Your task to perform on an android device: Do I have any events this weekend? Image 0: 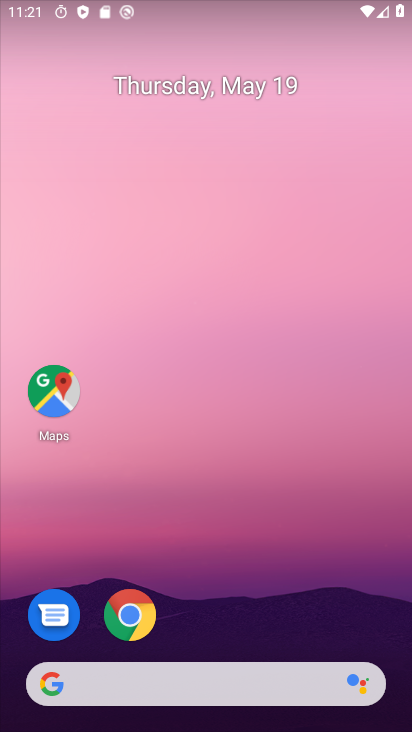
Step 0: drag from (239, 632) to (201, 183)
Your task to perform on an android device: Do I have any events this weekend? Image 1: 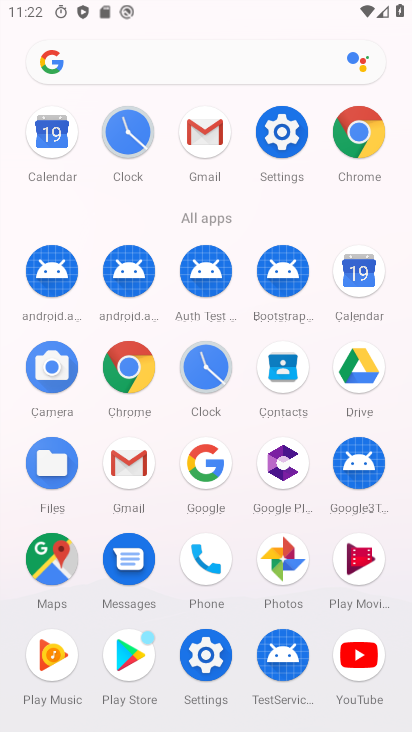
Step 1: click (373, 262)
Your task to perform on an android device: Do I have any events this weekend? Image 2: 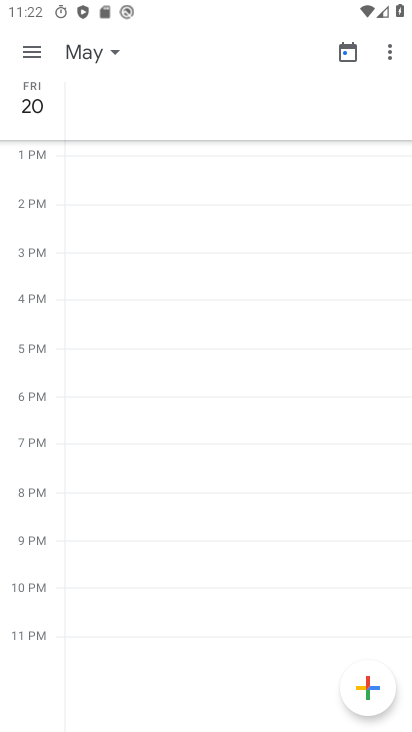
Step 2: click (31, 55)
Your task to perform on an android device: Do I have any events this weekend? Image 3: 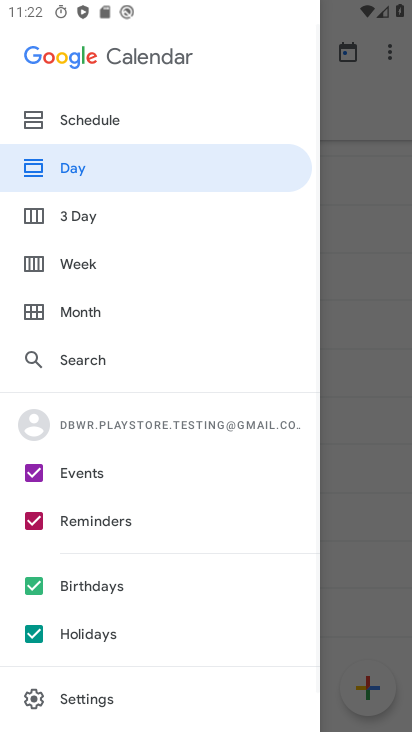
Step 3: click (117, 217)
Your task to perform on an android device: Do I have any events this weekend? Image 4: 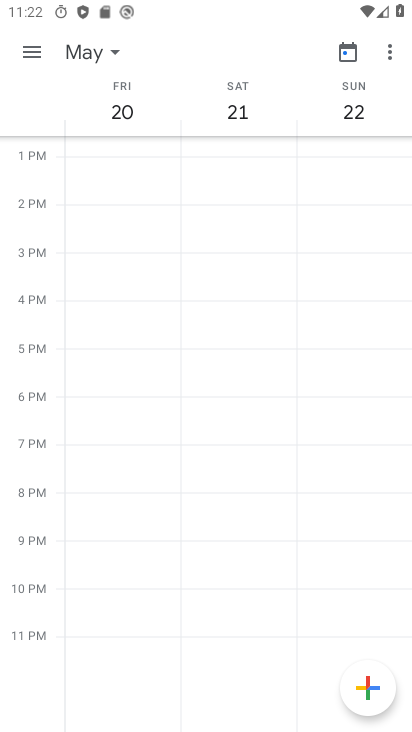
Step 4: task complete